Your task to perform on an android device: Is it going to rain tomorrow? Image 0: 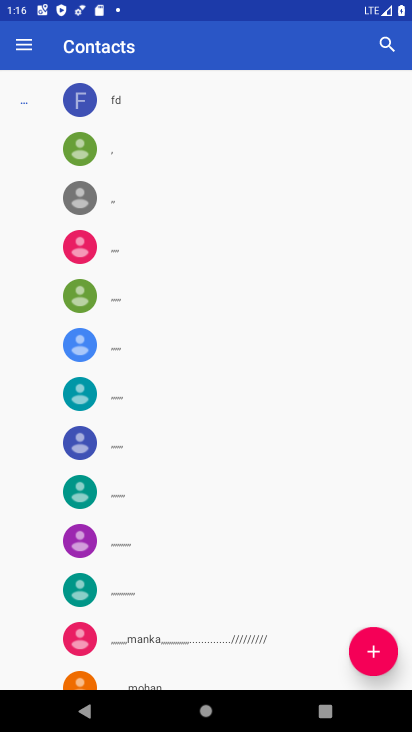
Step 0: press home button
Your task to perform on an android device: Is it going to rain tomorrow? Image 1: 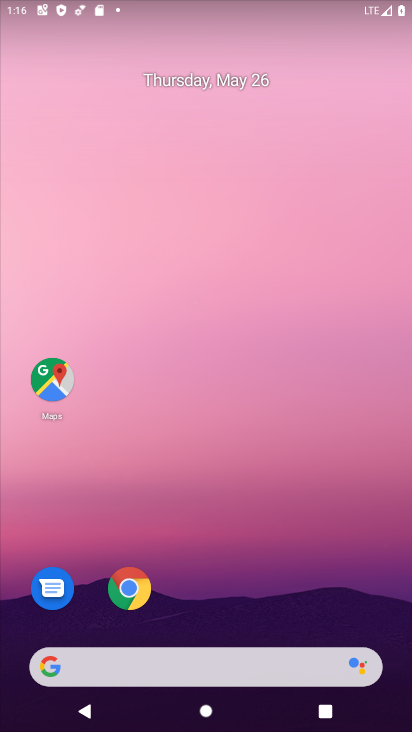
Step 1: drag from (4, 293) to (411, 287)
Your task to perform on an android device: Is it going to rain tomorrow? Image 2: 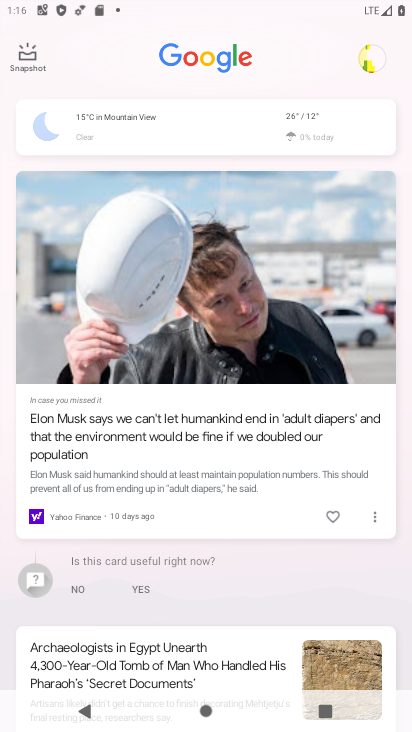
Step 2: click (293, 113)
Your task to perform on an android device: Is it going to rain tomorrow? Image 3: 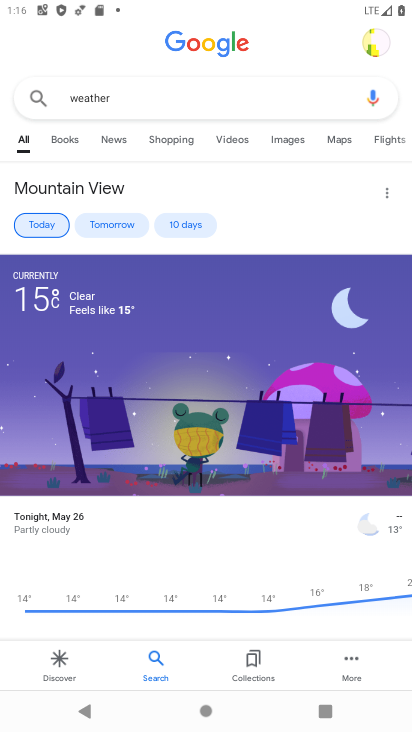
Step 3: click (115, 220)
Your task to perform on an android device: Is it going to rain tomorrow? Image 4: 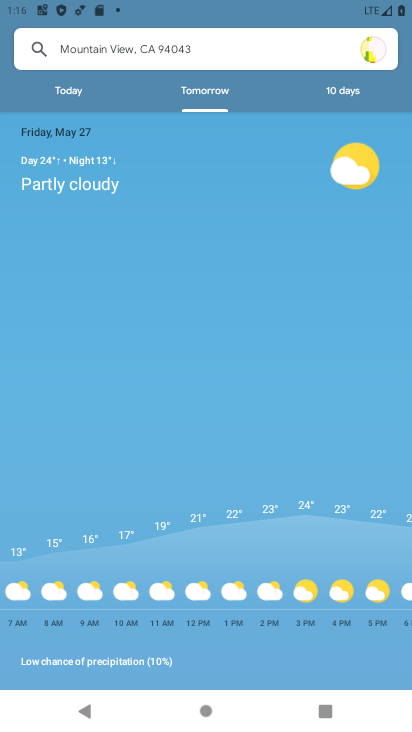
Step 4: task complete